Your task to perform on an android device: make emails show in primary in the gmail app Image 0: 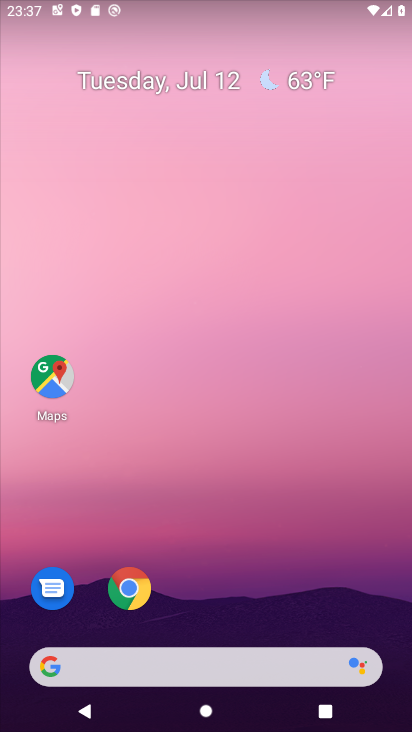
Step 0: drag from (25, 694) to (285, 121)
Your task to perform on an android device: make emails show in primary in the gmail app Image 1: 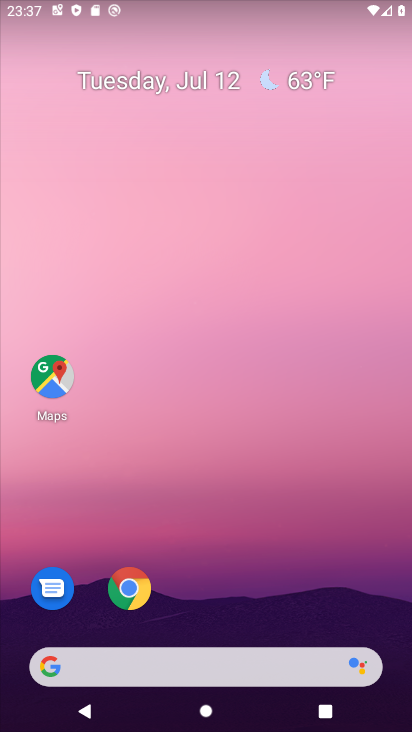
Step 1: drag from (43, 695) to (305, 28)
Your task to perform on an android device: make emails show in primary in the gmail app Image 2: 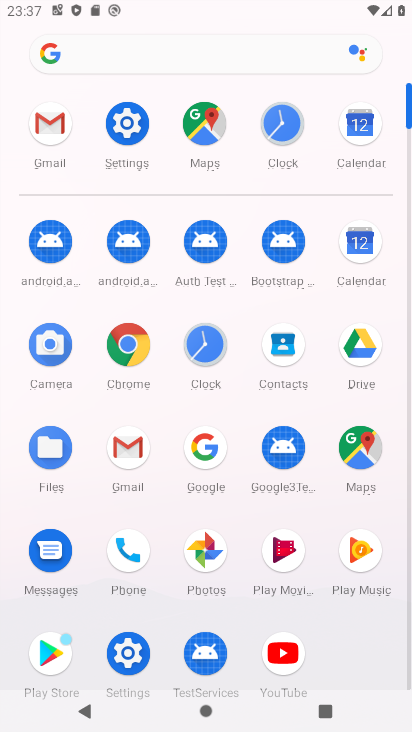
Step 2: click (137, 459)
Your task to perform on an android device: make emails show in primary in the gmail app Image 3: 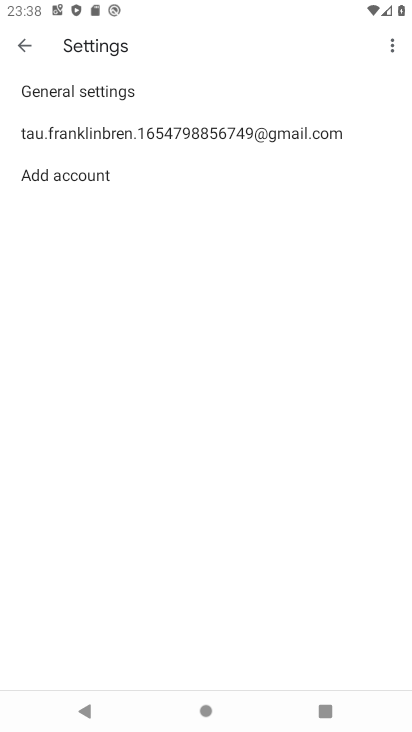
Step 3: click (20, 50)
Your task to perform on an android device: make emails show in primary in the gmail app Image 4: 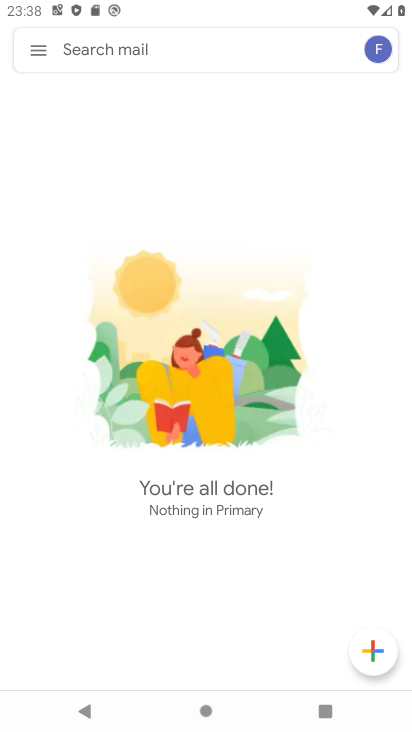
Step 4: click (33, 55)
Your task to perform on an android device: make emails show in primary in the gmail app Image 5: 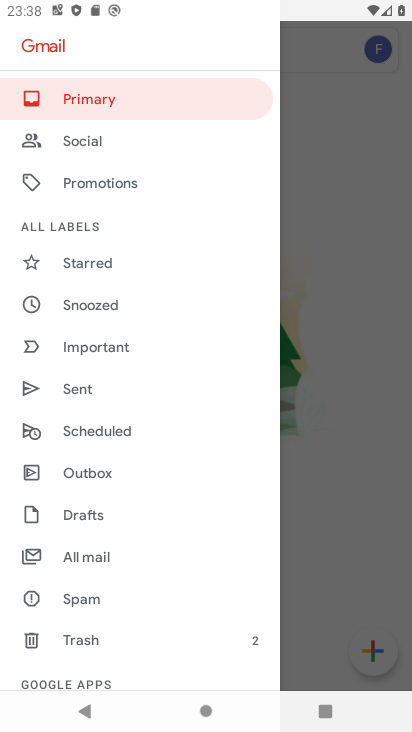
Step 5: click (121, 109)
Your task to perform on an android device: make emails show in primary in the gmail app Image 6: 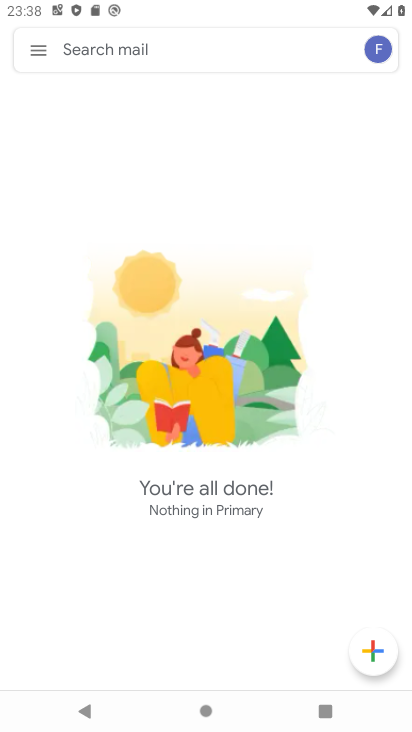
Step 6: task complete